Your task to perform on an android device: Open Reddit.com Image 0: 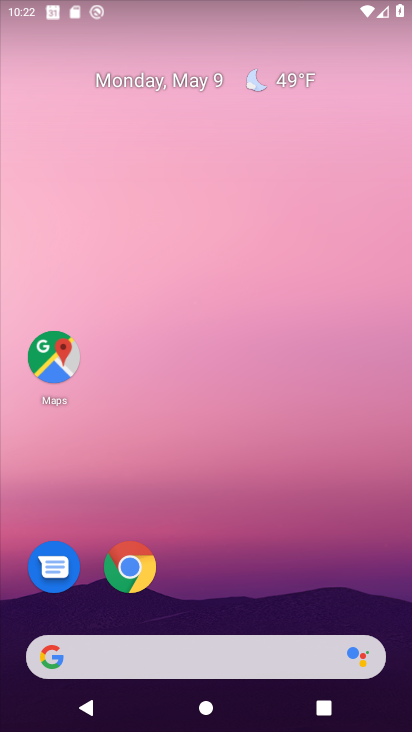
Step 0: drag from (212, 539) to (229, 240)
Your task to perform on an android device: Open Reddit.com Image 1: 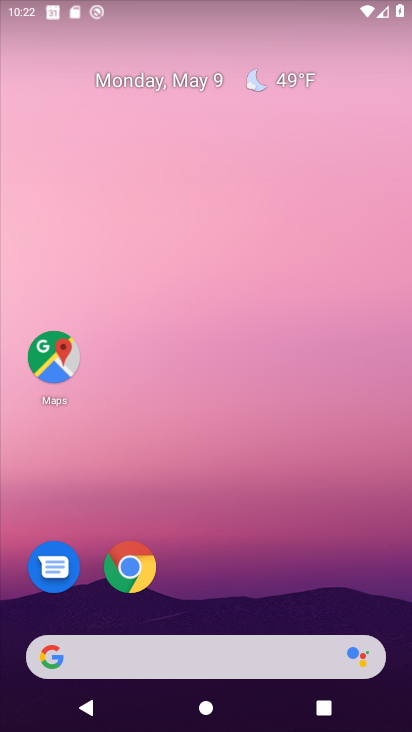
Step 1: drag from (148, 606) to (148, 359)
Your task to perform on an android device: Open Reddit.com Image 2: 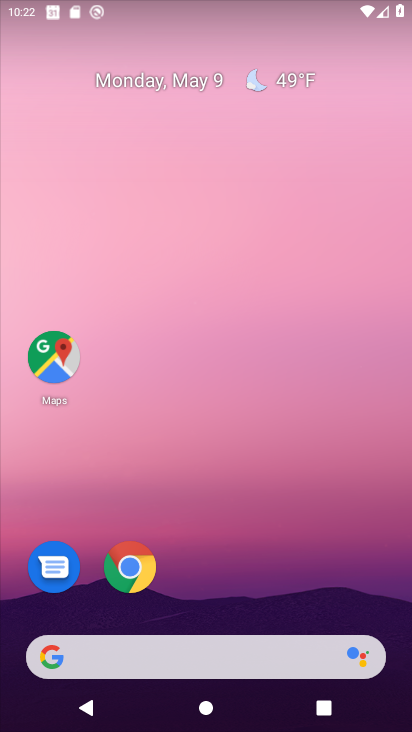
Step 2: click (139, 561)
Your task to perform on an android device: Open Reddit.com Image 3: 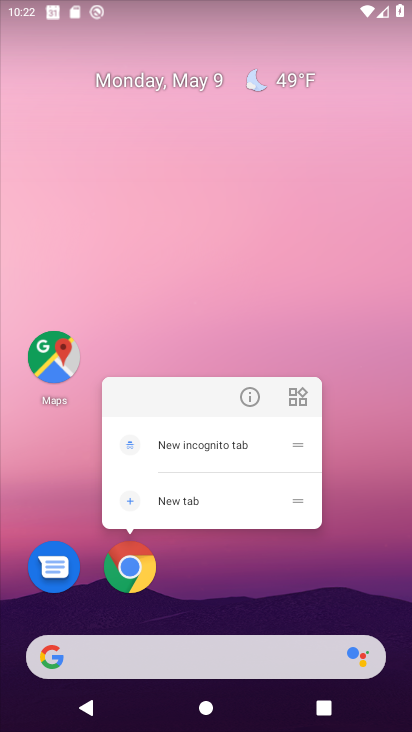
Step 3: click (139, 561)
Your task to perform on an android device: Open Reddit.com Image 4: 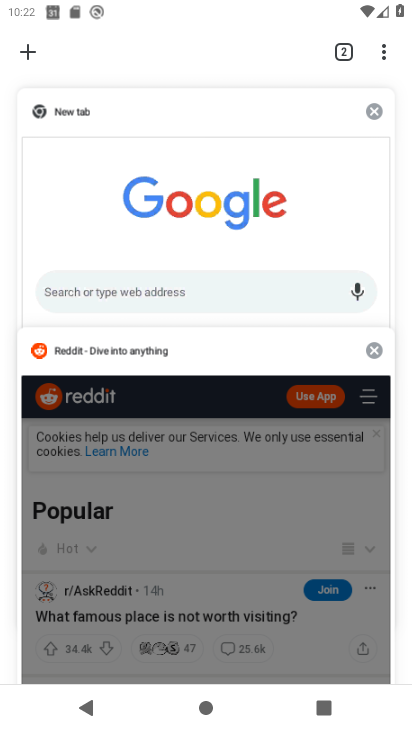
Step 4: click (148, 295)
Your task to perform on an android device: Open Reddit.com Image 5: 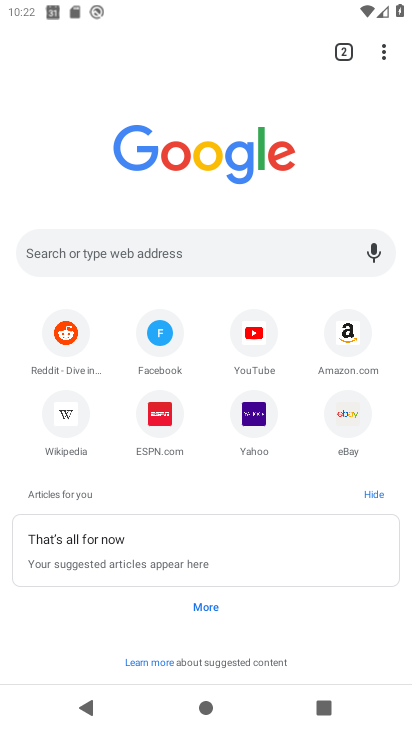
Step 5: click (62, 337)
Your task to perform on an android device: Open Reddit.com Image 6: 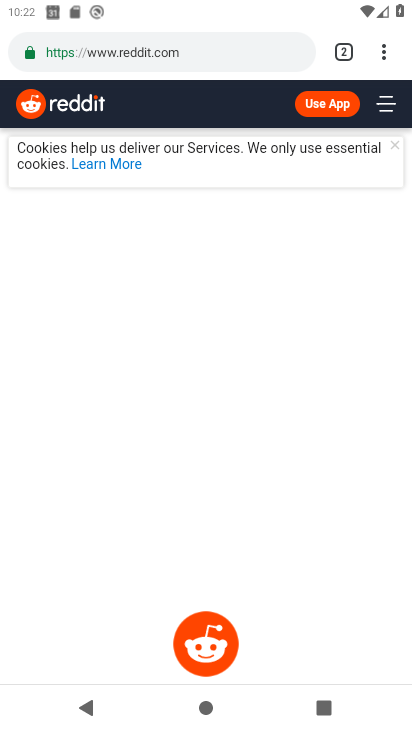
Step 6: task complete